Your task to perform on an android device: turn on showing notifications on the lock screen Image 0: 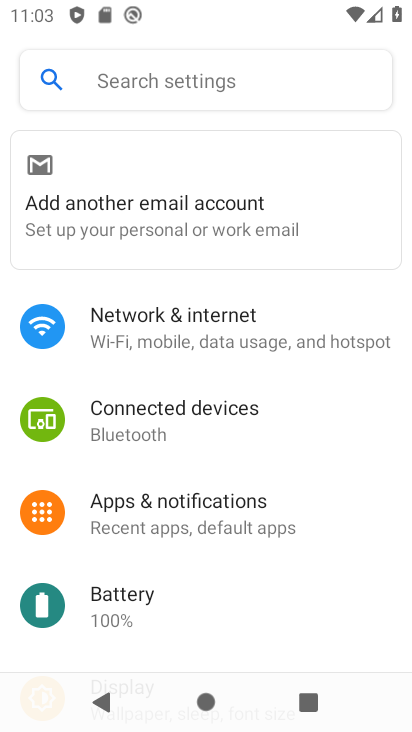
Step 0: press home button
Your task to perform on an android device: turn on showing notifications on the lock screen Image 1: 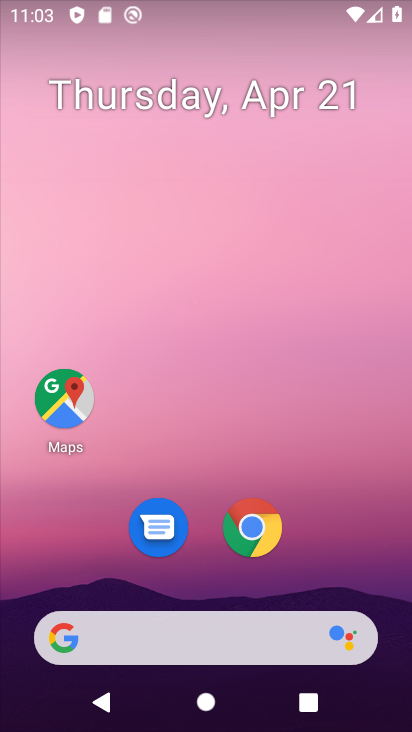
Step 1: drag from (217, 599) to (187, 40)
Your task to perform on an android device: turn on showing notifications on the lock screen Image 2: 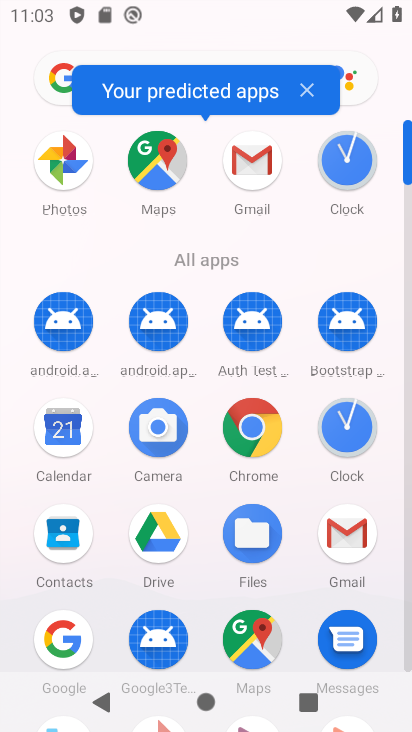
Step 2: drag from (207, 609) to (195, 135)
Your task to perform on an android device: turn on showing notifications on the lock screen Image 3: 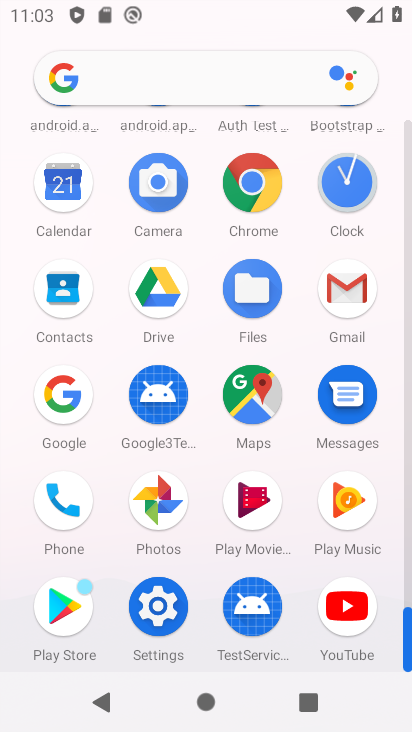
Step 3: click (150, 609)
Your task to perform on an android device: turn on showing notifications on the lock screen Image 4: 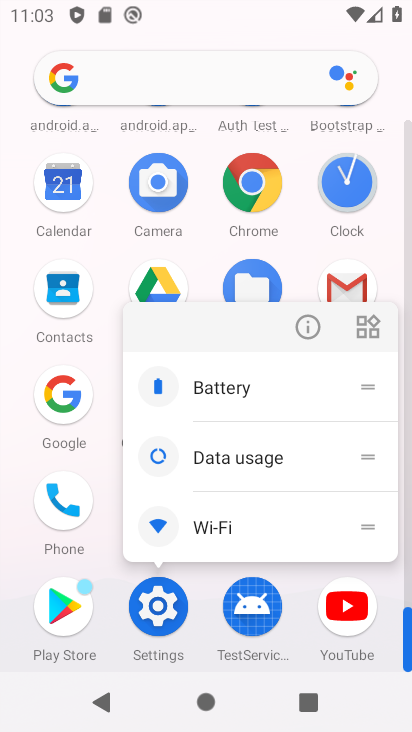
Step 4: click (160, 645)
Your task to perform on an android device: turn on showing notifications on the lock screen Image 5: 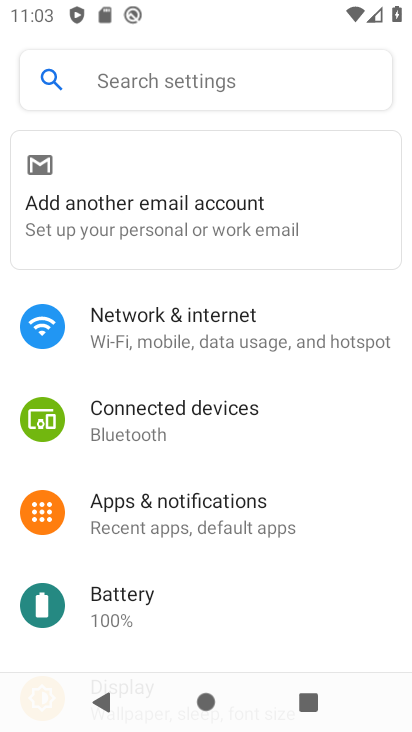
Step 5: click (208, 518)
Your task to perform on an android device: turn on showing notifications on the lock screen Image 6: 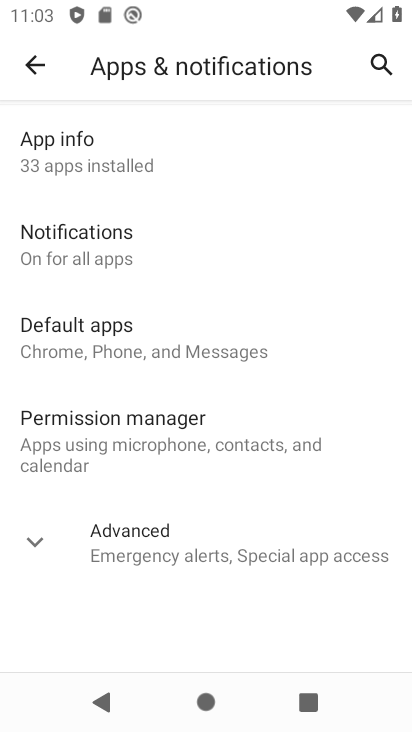
Step 6: click (72, 266)
Your task to perform on an android device: turn on showing notifications on the lock screen Image 7: 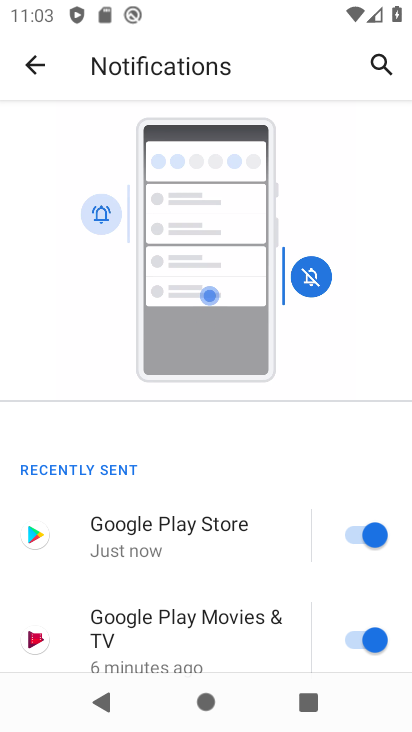
Step 7: drag from (171, 588) to (143, 113)
Your task to perform on an android device: turn on showing notifications on the lock screen Image 8: 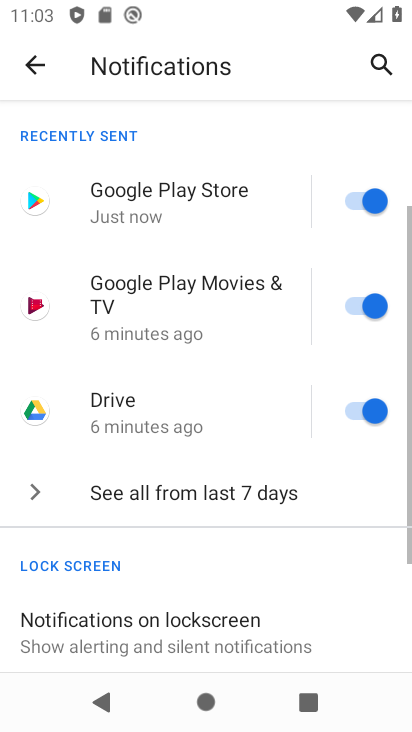
Step 8: drag from (228, 621) to (185, 321)
Your task to perform on an android device: turn on showing notifications on the lock screen Image 9: 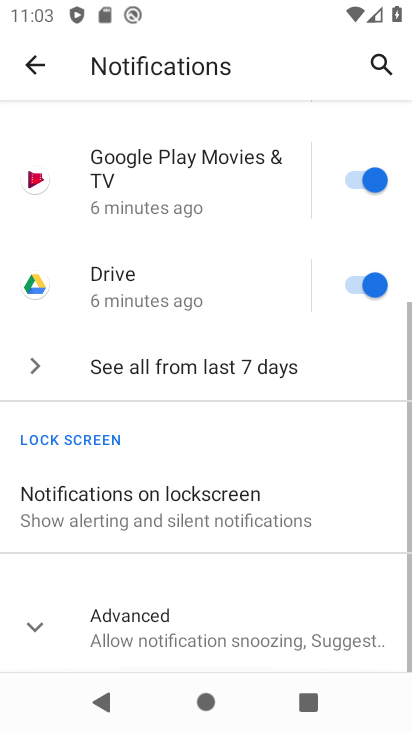
Step 9: click (185, 625)
Your task to perform on an android device: turn on showing notifications on the lock screen Image 10: 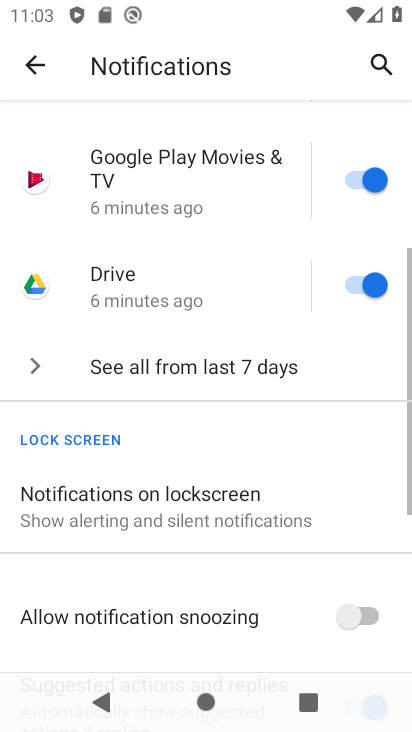
Step 10: click (158, 514)
Your task to perform on an android device: turn on showing notifications on the lock screen Image 11: 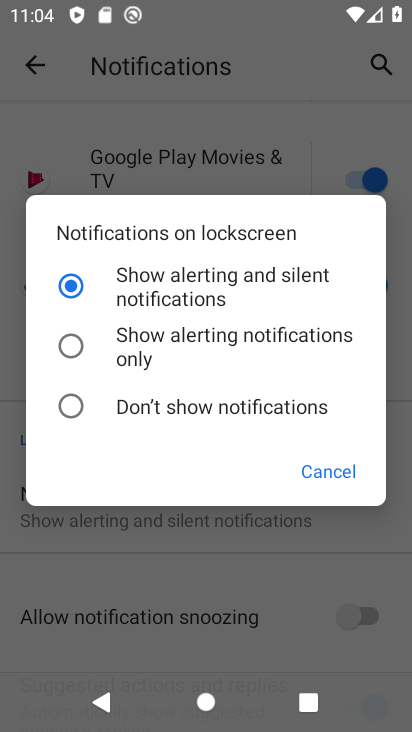
Step 11: click (180, 267)
Your task to perform on an android device: turn on showing notifications on the lock screen Image 12: 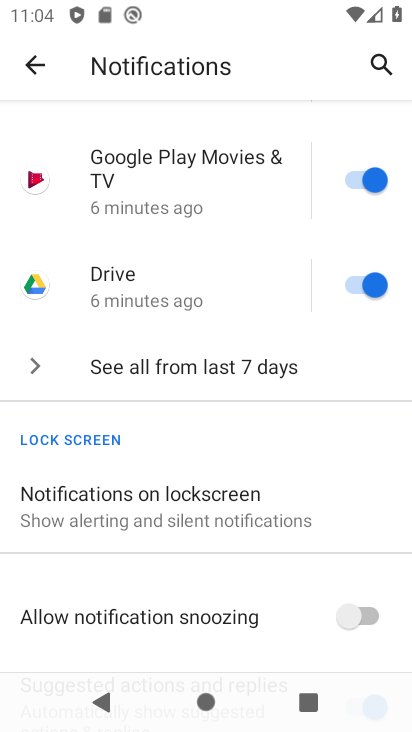
Step 12: task complete